Your task to perform on an android device: set an alarm Image 0: 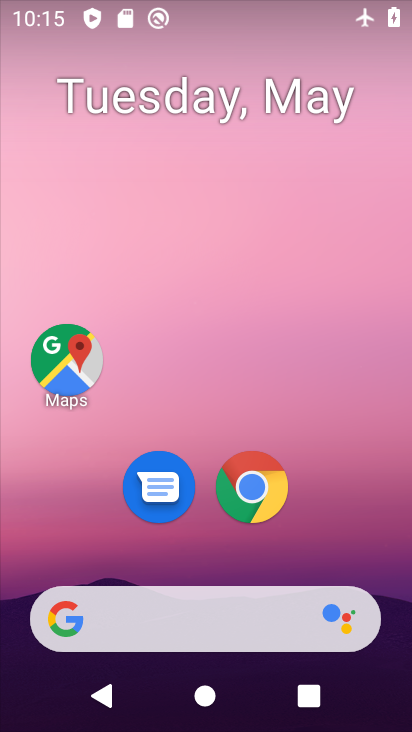
Step 0: drag from (219, 566) to (242, 137)
Your task to perform on an android device: set an alarm Image 1: 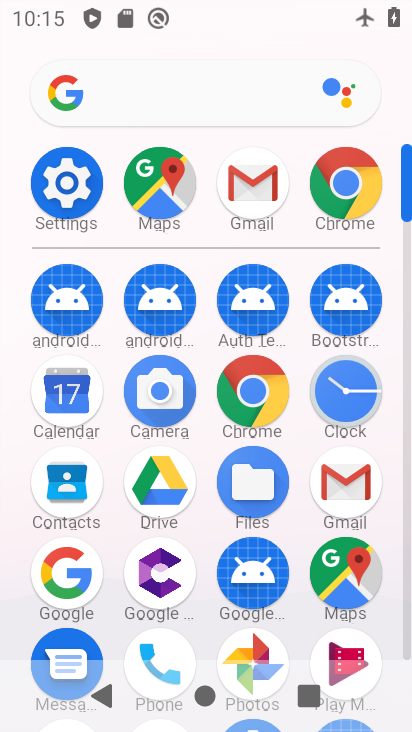
Step 1: click (329, 385)
Your task to perform on an android device: set an alarm Image 2: 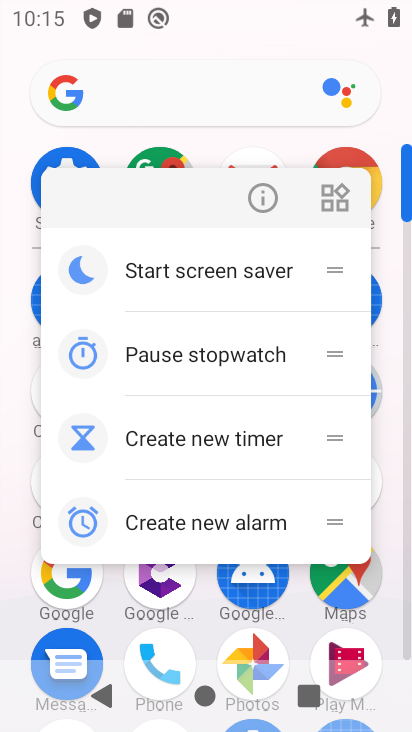
Step 2: click (260, 201)
Your task to perform on an android device: set an alarm Image 3: 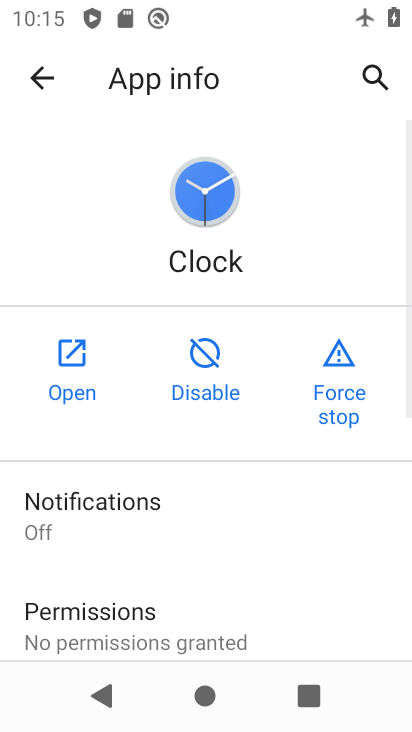
Step 3: click (53, 344)
Your task to perform on an android device: set an alarm Image 4: 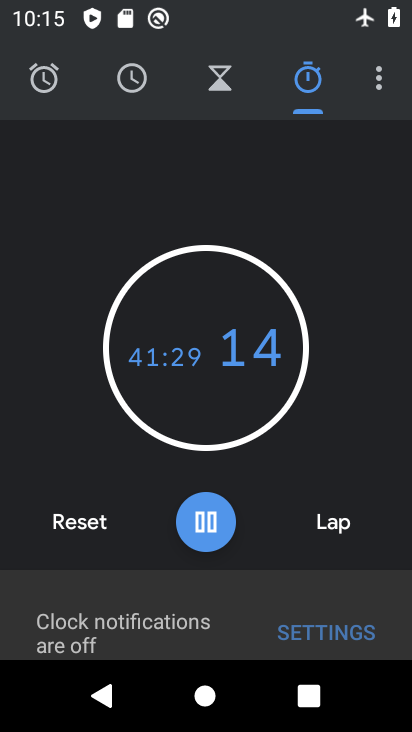
Step 4: click (64, 82)
Your task to perform on an android device: set an alarm Image 5: 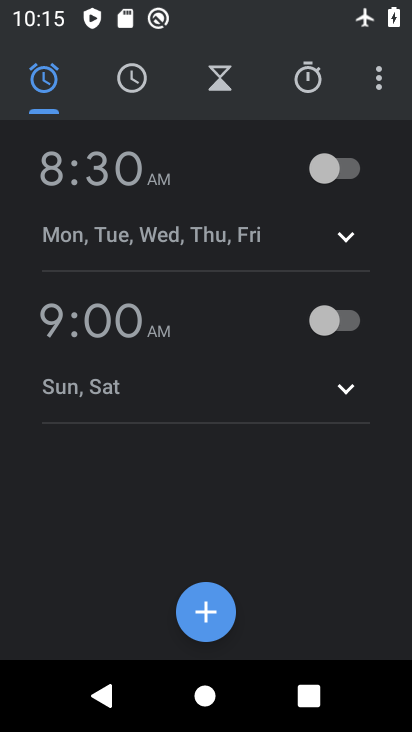
Step 5: click (353, 159)
Your task to perform on an android device: set an alarm Image 6: 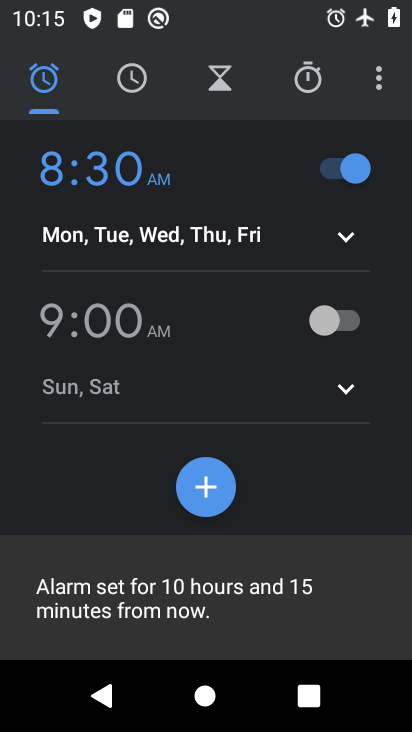
Step 6: task complete